Your task to perform on an android device: Go to Yahoo.com Image 0: 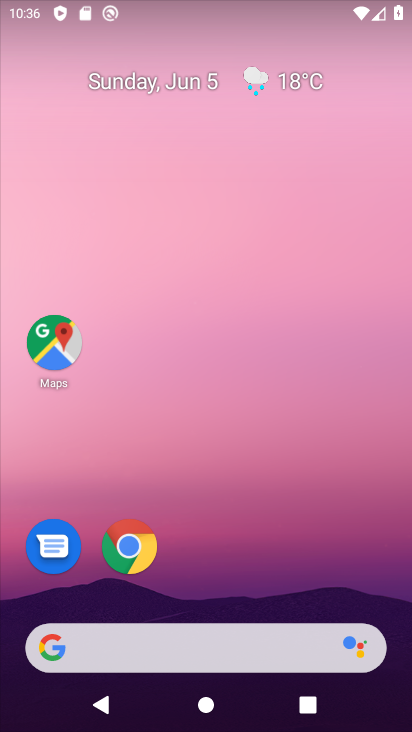
Step 0: click (119, 559)
Your task to perform on an android device: Go to Yahoo.com Image 1: 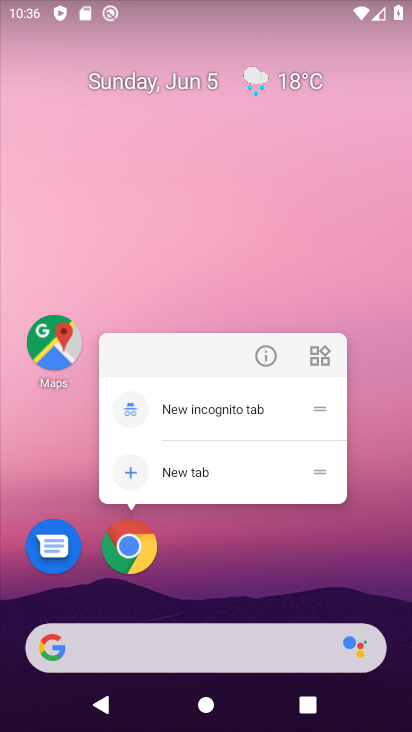
Step 1: click (132, 545)
Your task to perform on an android device: Go to Yahoo.com Image 2: 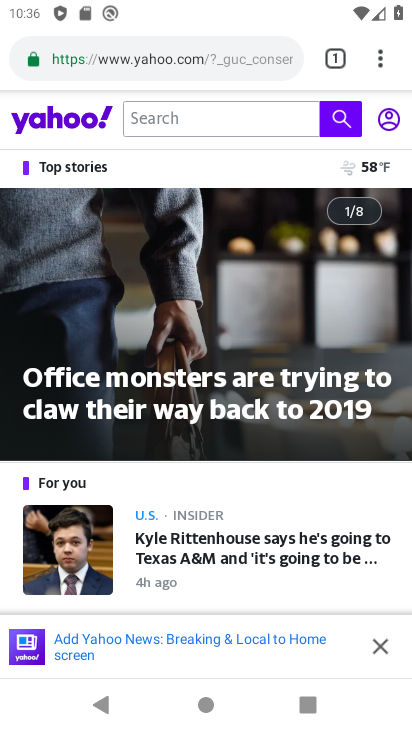
Step 2: task complete